Your task to perform on an android device: Go to Google Image 0: 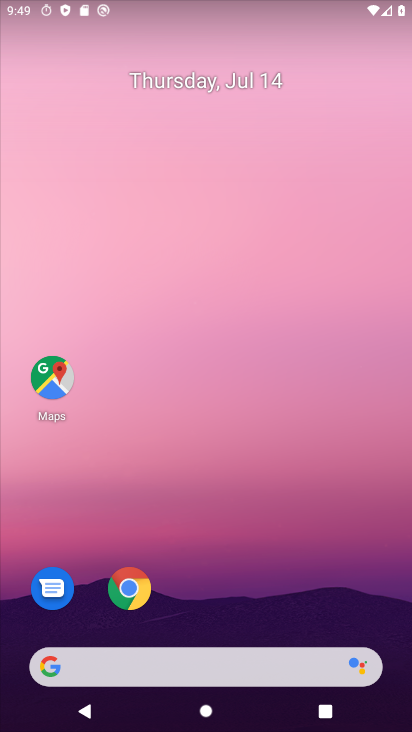
Step 0: drag from (129, 626) to (230, 0)
Your task to perform on an android device: Go to Google Image 1: 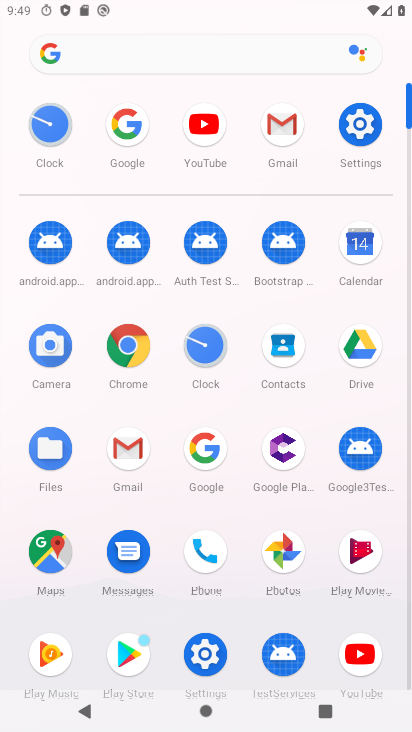
Step 1: click (207, 441)
Your task to perform on an android device: Go to Google Image 2: 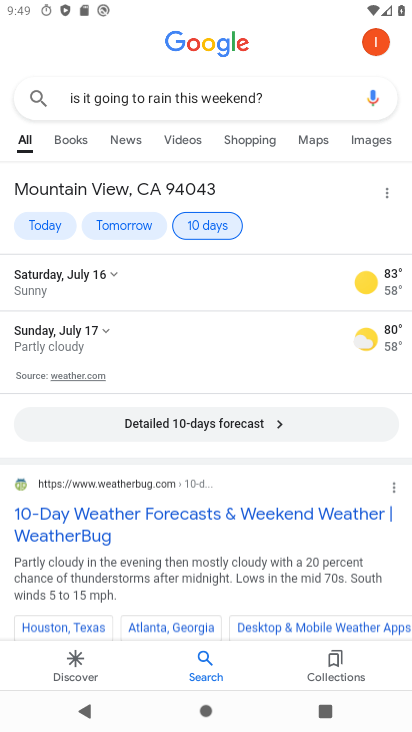
Step 2: task complete